Your task to perform on an android device: turn pop-ups on in chrome Image 0: 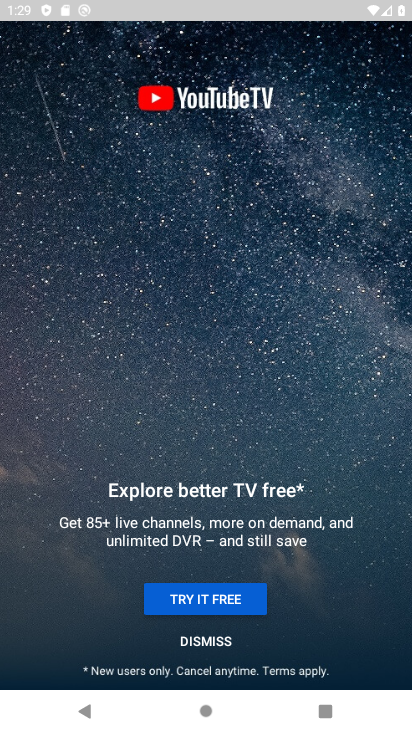
Step 0: press home button
Your task to perform on an android device: turn pop-ups on in chrome Image 1: 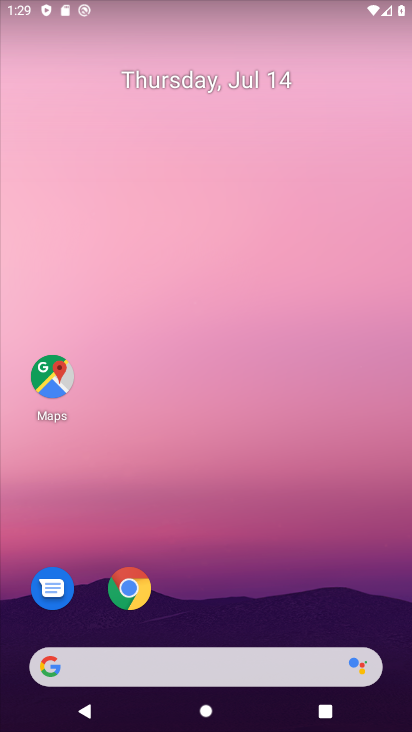
Step 1: click (129, 586)
Your task to perform on an android device: turn pop-ups on in chrome Image 2: 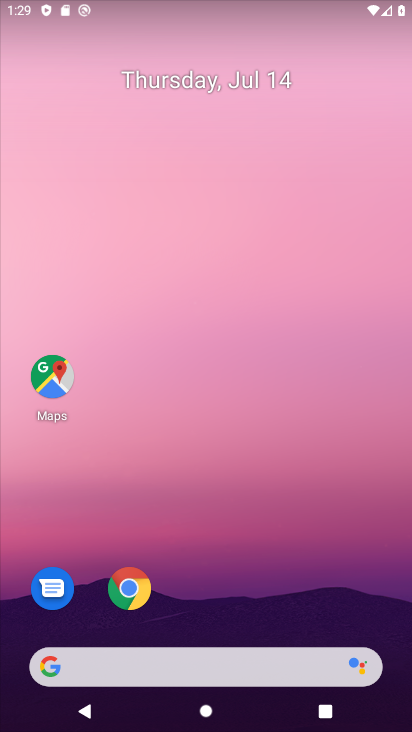
Step 2: click (129, 586)
Your task to perform on an android device: turn pop-ups on in chrome Image 3: 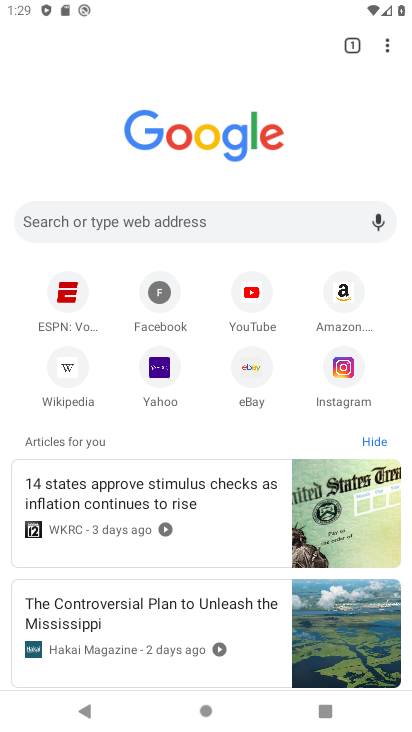
Step 3: click (386, 44)
Your task to perform on an android device: turn pop-ups on in chrome Image 4: 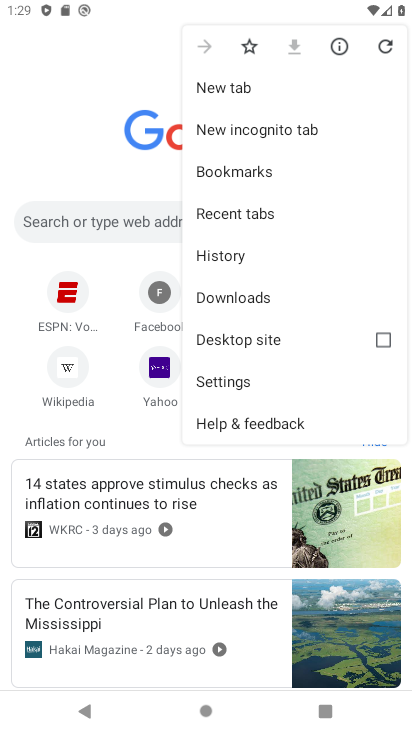
Step 4: click (208, 374)
Your task to perform on an android device: turn pop-ups on in chrome Image 5: 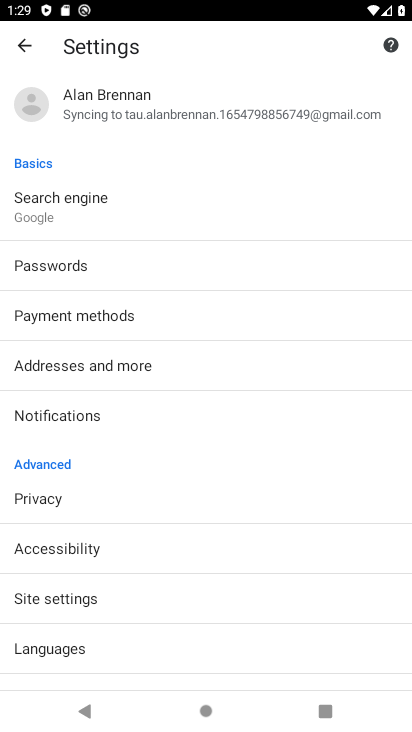
Step 5: click (102, 602)
Your task to perform on an android device: turn pop-ups on in chrome Image 6: 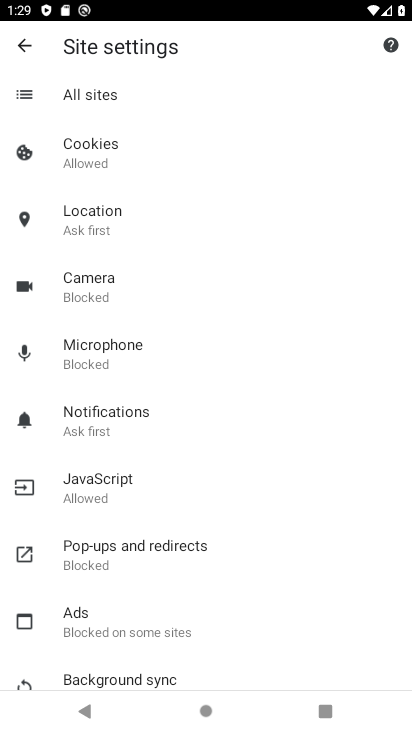
Step 6: click (140, 556)
Your task to perform on an android device: turn pop-ups on in chrome Image 7: 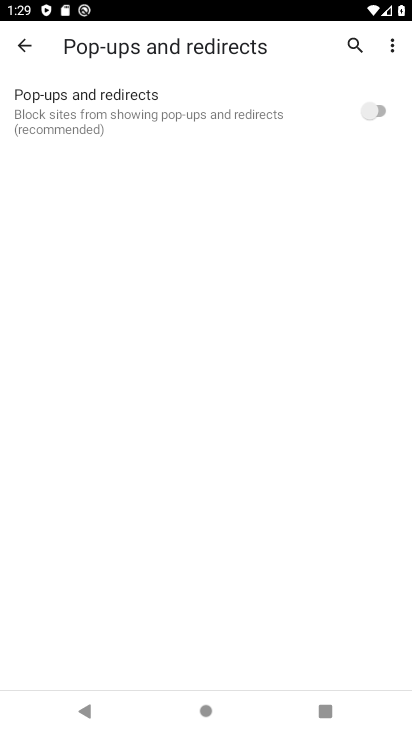
Step 7: click (375, 106)
Your task to perform on an android device: turn pop-ups on in chrome Image 8: 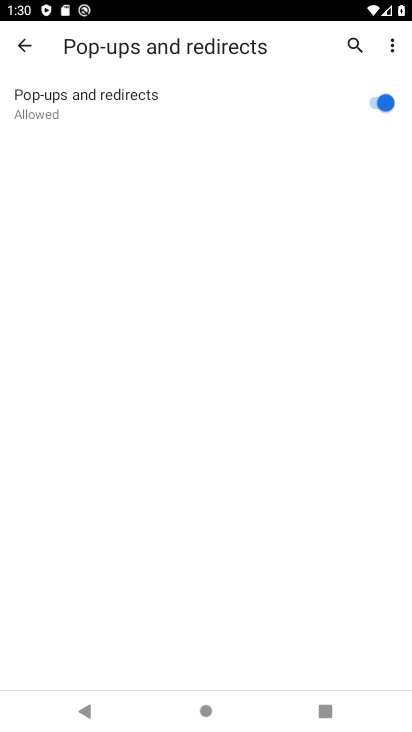
Step 8: task complete